Your task to perform on an android device: open app "DoorDash - Dasher" Image 0: 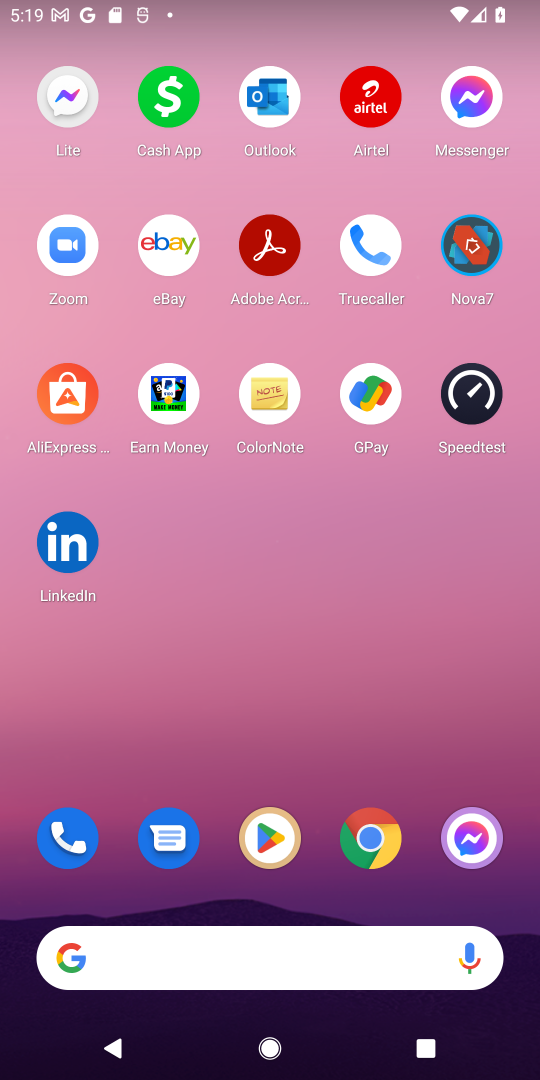
Step 0: drag from (217, 956) to (239, 105)
Your task to perform on an android device: open app "DoorDash - Dasher" Image 1: 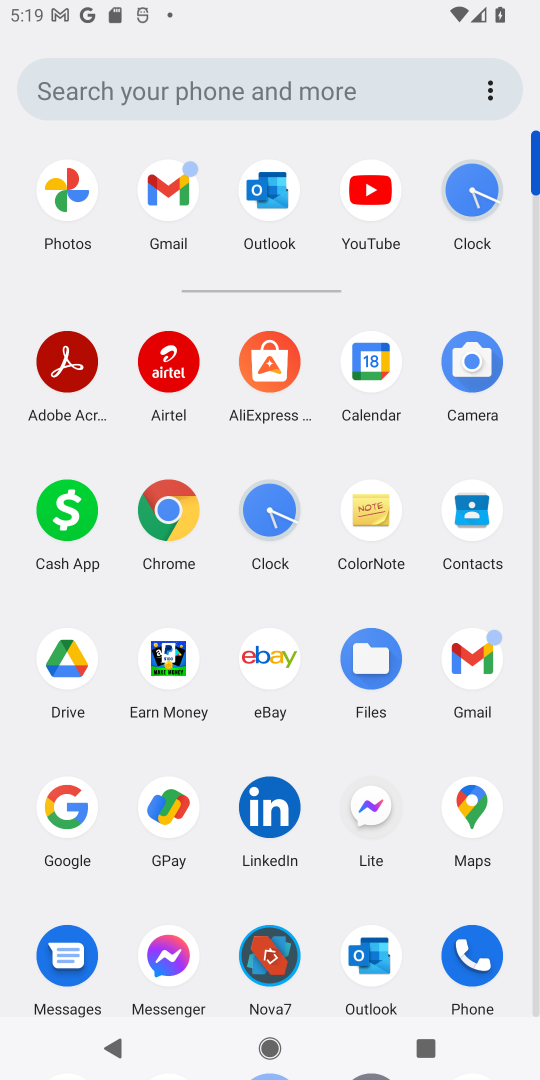
Step 1: drag from (327, 865) to (315, 456)
Your task to perform on an android device: open app "DoorDash - Dasher" Image 2: 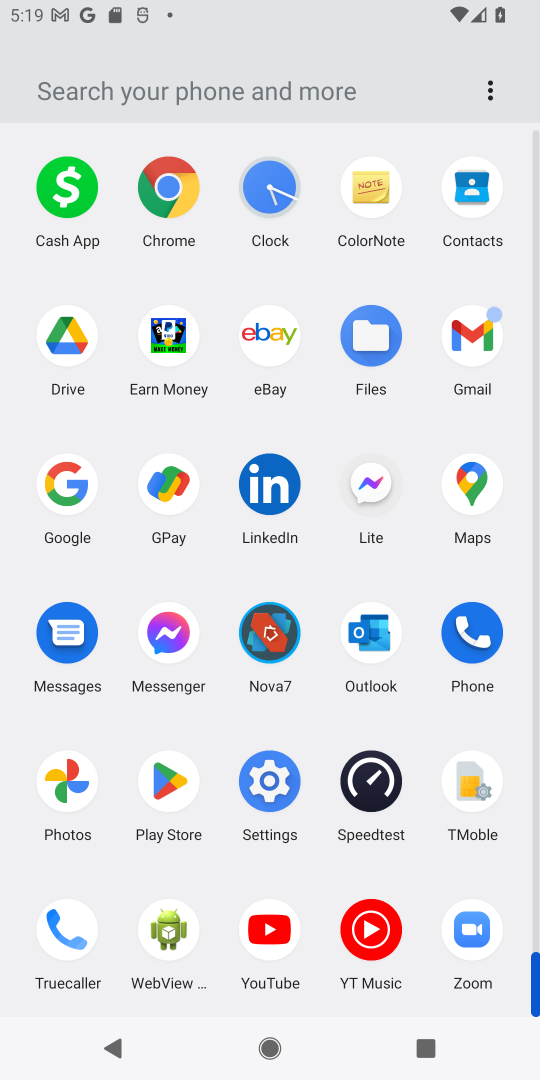
Step 2: click (172, 786)
Your task to perform on an android device: open app "DoorDash - Dasher" Image 3: 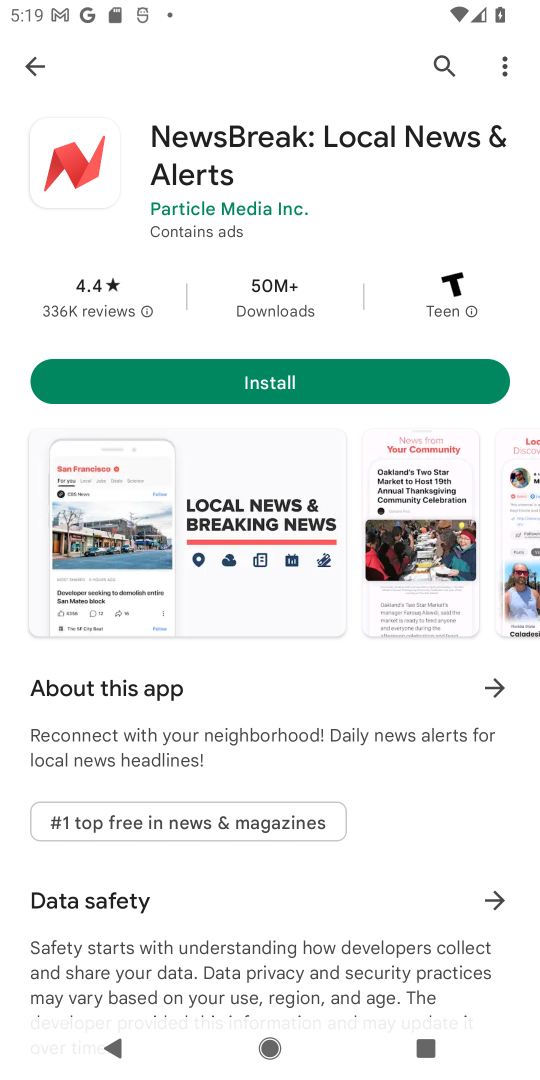
Step 3: press back button
Your task to perform on an android device: open app "DoorDash - Dasher" Image 4: 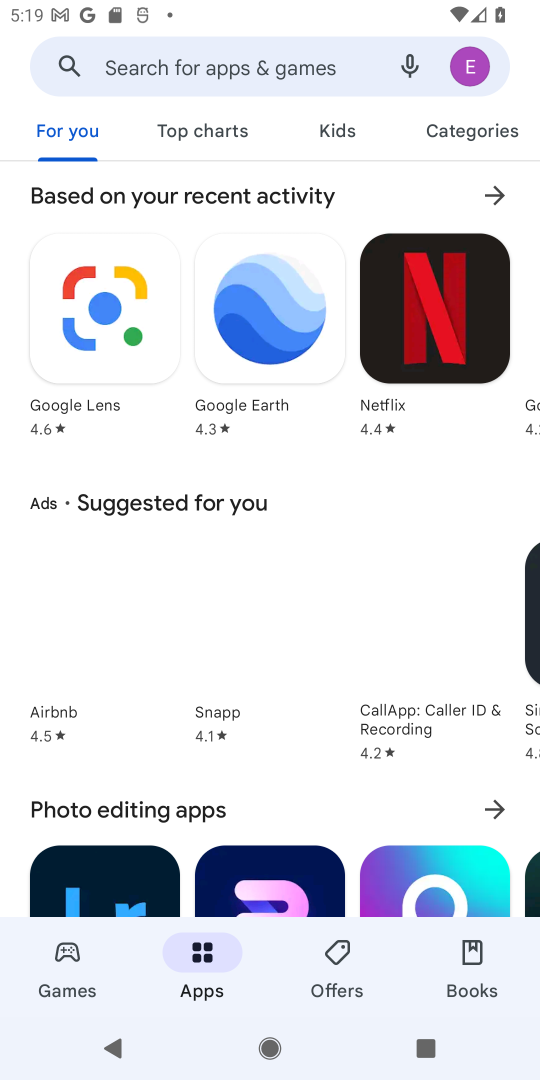
Step 4: click (276, 70)
Your task to perform on an android device: open app "DoorDash - Dasher" Image 5: 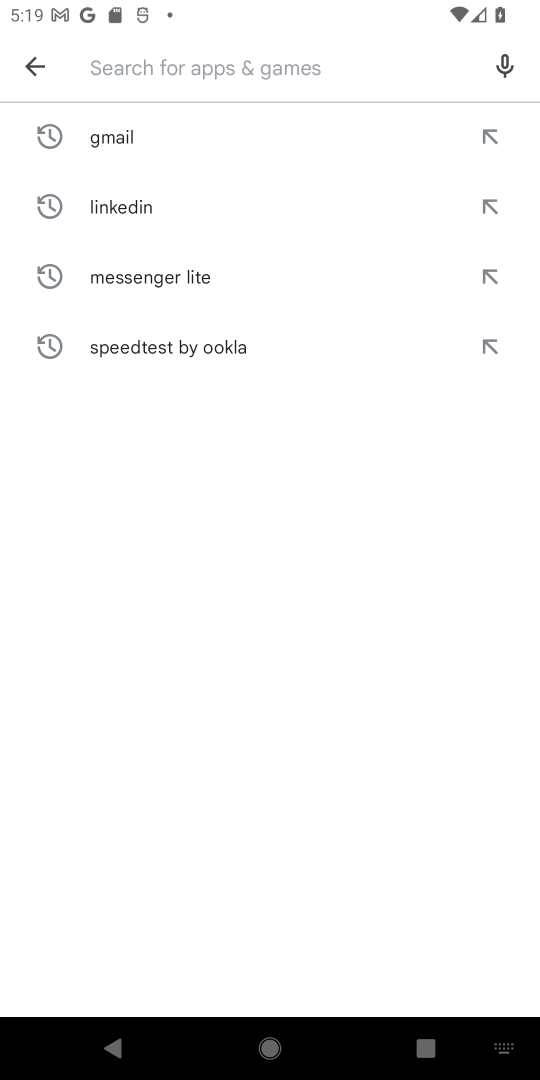
Step 5: click (159, 68)
Your task to perform on an android device: open app "DoorDash - Dasher" Image 6: 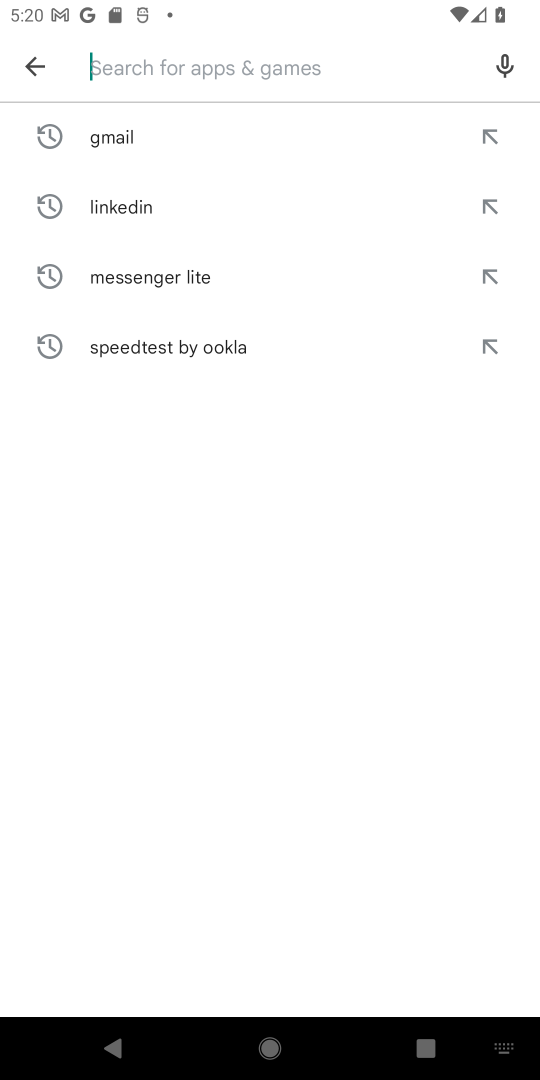
Step 6: type "DoorDash - Dasher"
Your task to perform on an android device: open app "DoorDash - Dasher" Image 7: 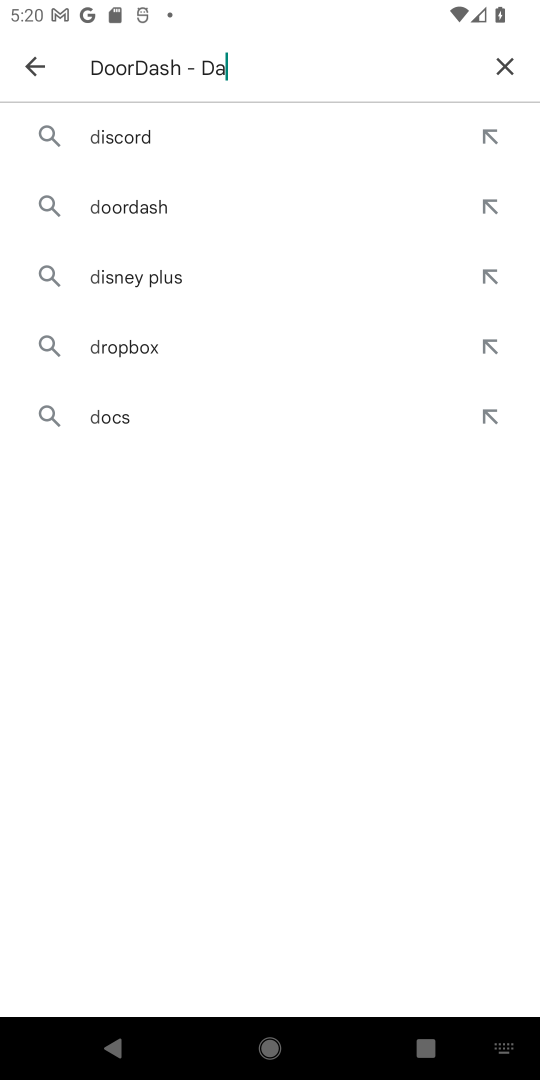
Step 7: type ""
Your task to perform on an android device: open app "DoorDash - Dasher" Image 8: 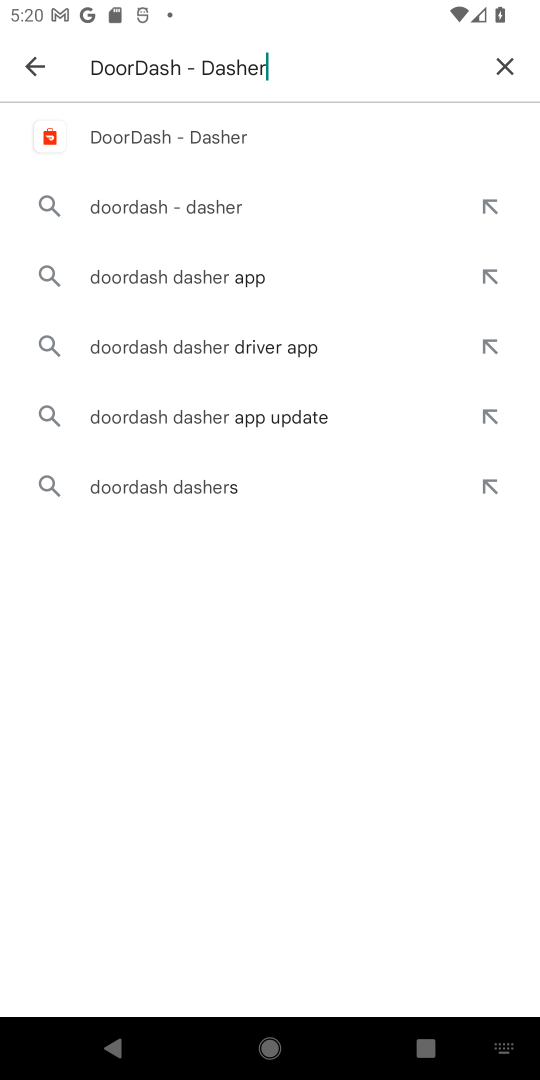
Step 8: click (204, 143)
Your task to perform on an android device: open app "DoorDash - Dasher" Image 9: 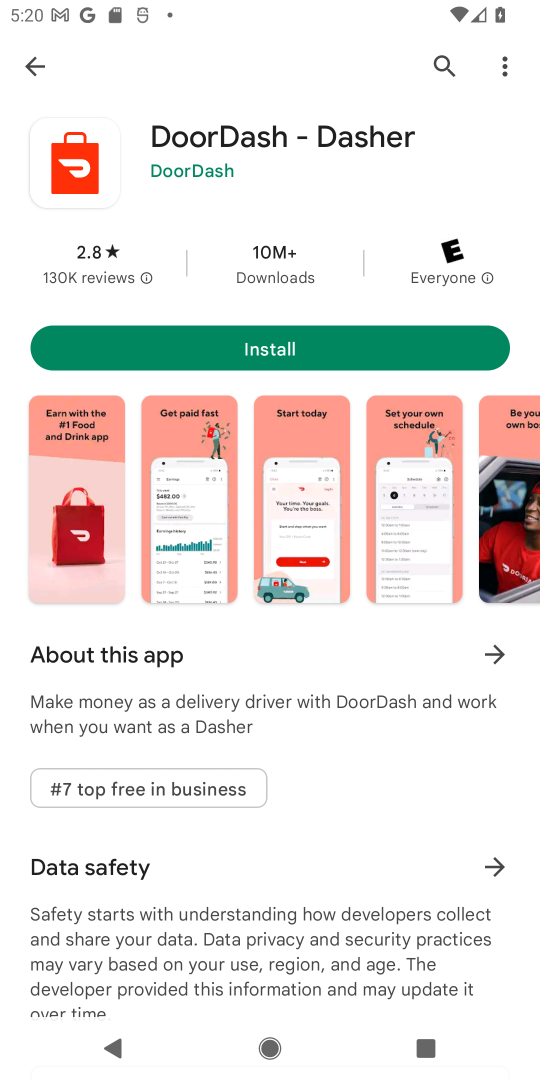
Step 9: task complete